Your task to perform on an android device: turn on data saver in the chrome app Image 0: 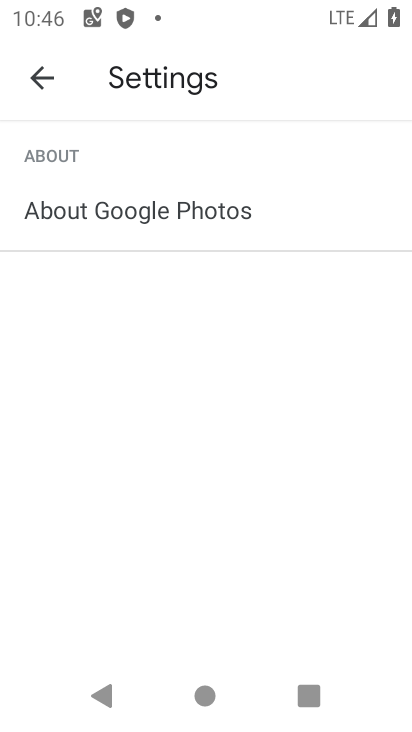
Step 0: press back button
Your task to perform on an android device: turn on data saver in the chrome app Image 1: 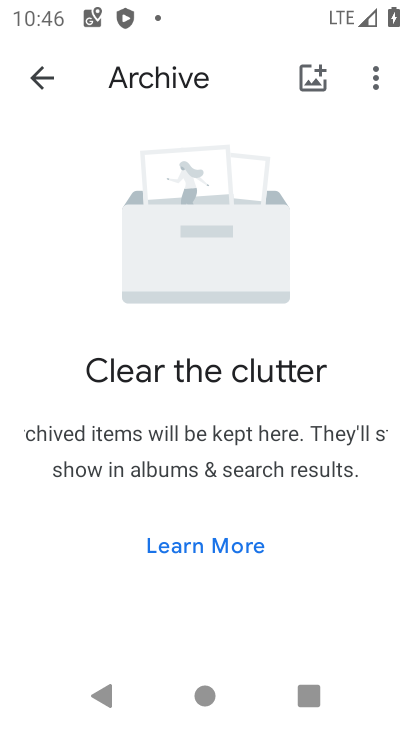
Step 1: press back button
Your task to perform on an android device: turn on data saver in the chrome app Image 2: 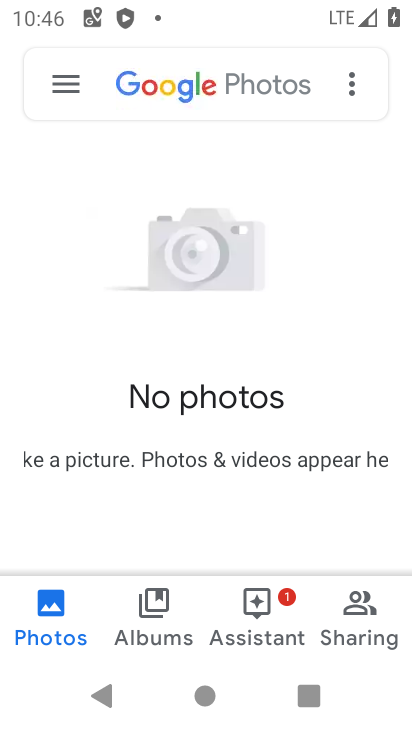
Step 2: press back button
Your task to perform on an android device: turn on data saver in the chrome app Image 3: 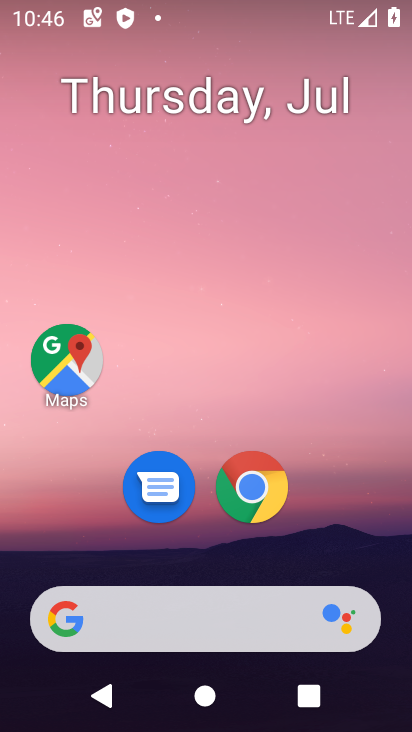
Step 3: click (247, 481)
Your task to perform on an android device: turn on data saver in the chrome app Image 4: 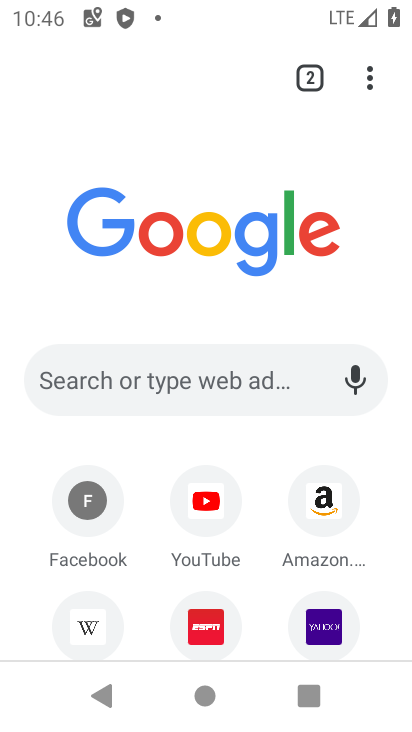
Step 4: drag from (372, 67) to (121, 545)
Your task to perform on an android device: turn on data saver in the chrome app Image 5: 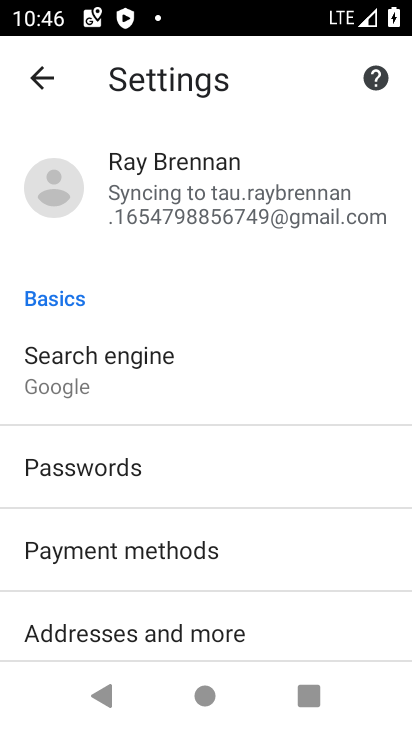
Step 5: drag from (131, 612) to (246, 171)
Your task to perform on an android device: turn on data saver in the chrome app Image 6: 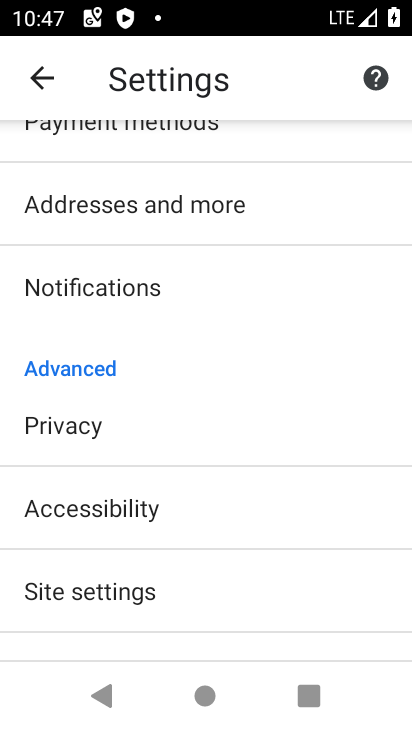
Step 6: drag from (134, 597) to (213, 87)
Your task to perform on an android device: turn on data saver in the chrome app Image 7: 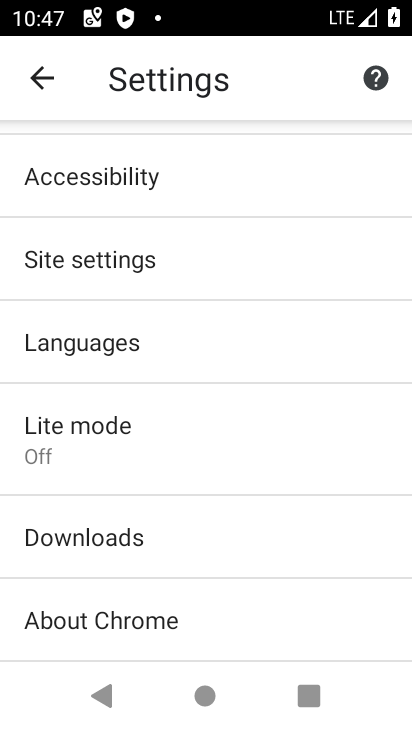
Step 7: click (72, 451)
Your task to perform on an android device: turn on data saver in the chrome app Image 8: 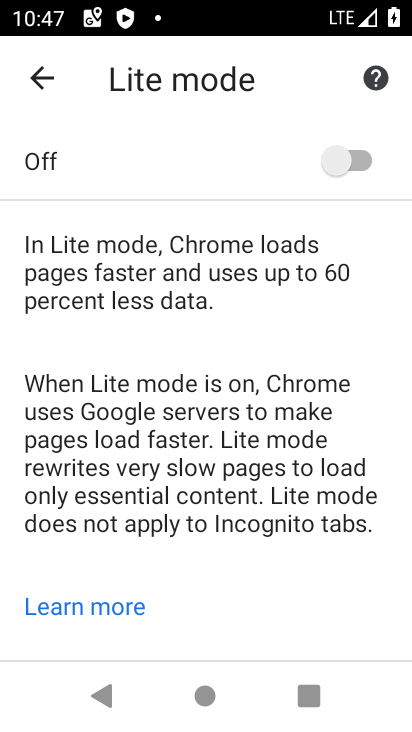
Step 8: click (345, 162)
Your task to perform on an android device: turn on data saver in the chrome app Image 9: 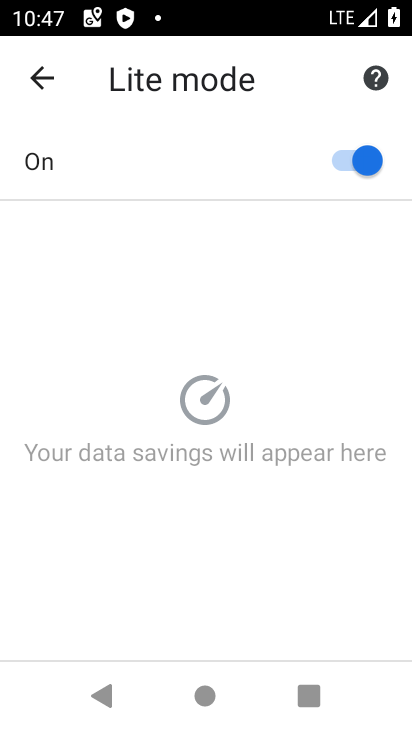
Step 9: task complete